Your task to perform on an android device: Go to Reddit.com Image 0: 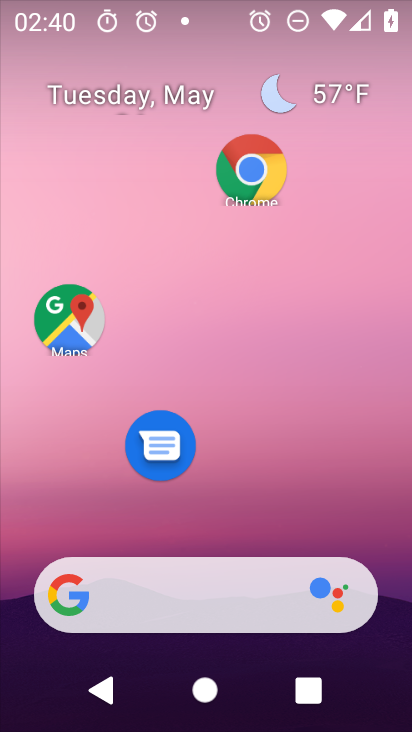
Step 0: click (246, 171)
Your task to perform on an android device: Go to Reddit.com Image 1: 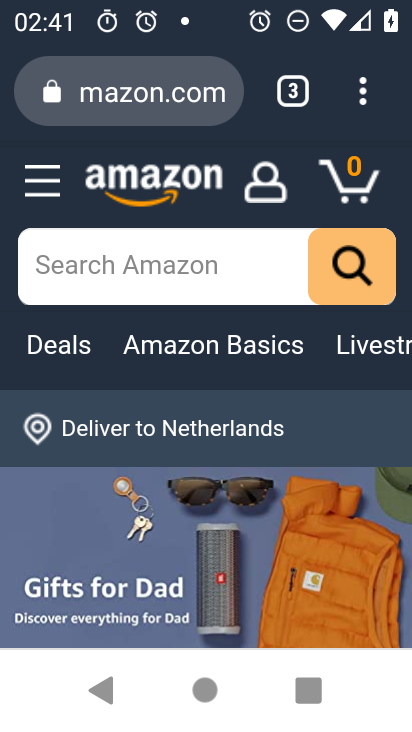
Step 1: click (364, 104)
Your task to perform on an android device: Go to Reddit.com Image 2: 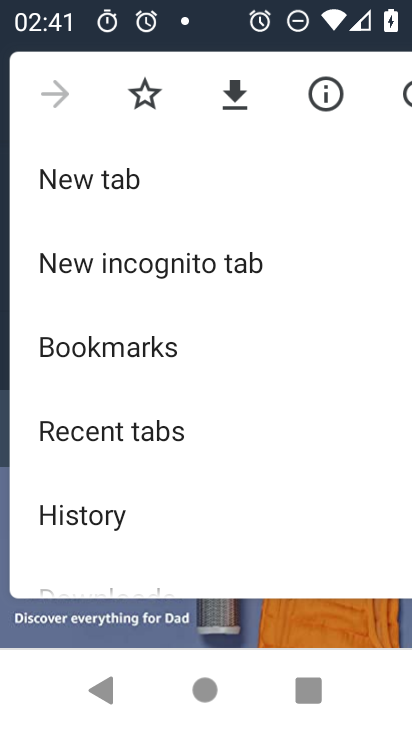
Step 2: click (72, 181)
Your task to perform on an android device: Go to Reddit.com Image 3: 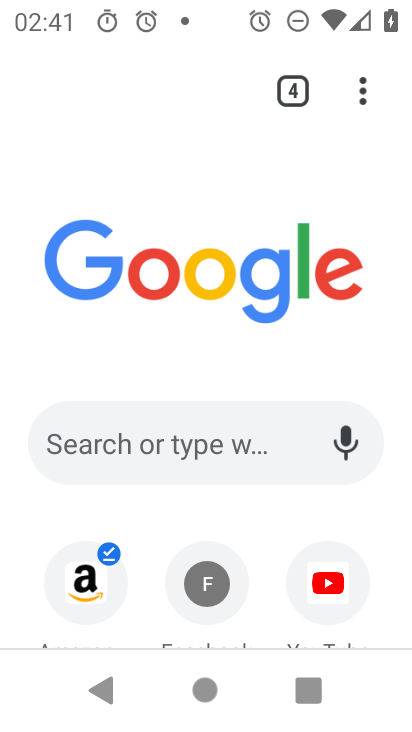
Step 3: drag from (36, 578) to (59, 428)
Your task to perform on an android device: Go to Reddit.com Image 4: 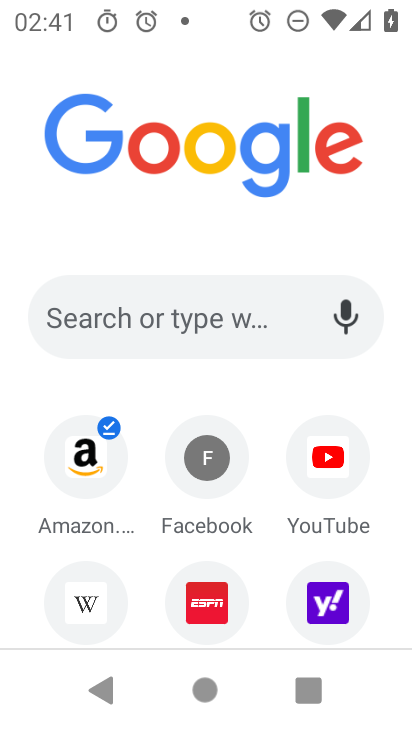
Step 4: click (223, 316)
Your task to perform on an android device: Go to Reddit.com Image 5: 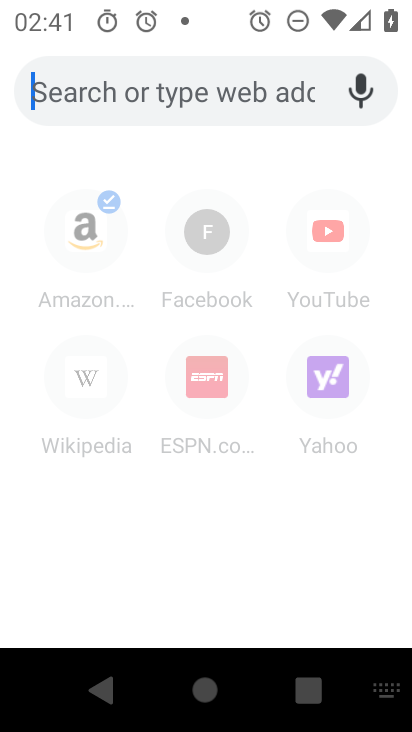
Step 5: type "REddit.com"
Your task to perform on an android device: Go to Reddit.com Image 6: 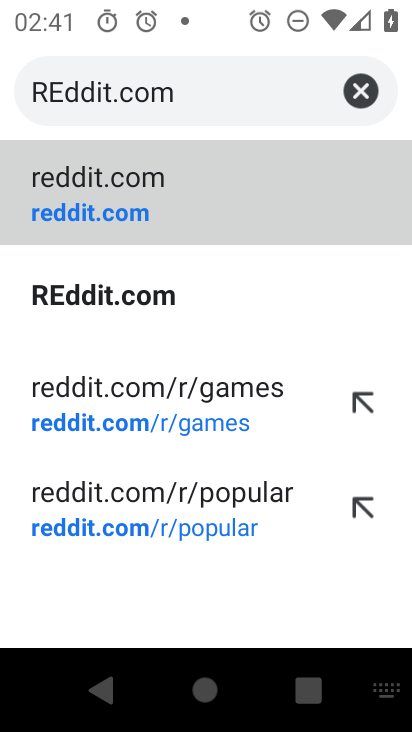
Step 6: click (113, 182)
Your task to perform on an android device: Go to Reddit.com Image 7: 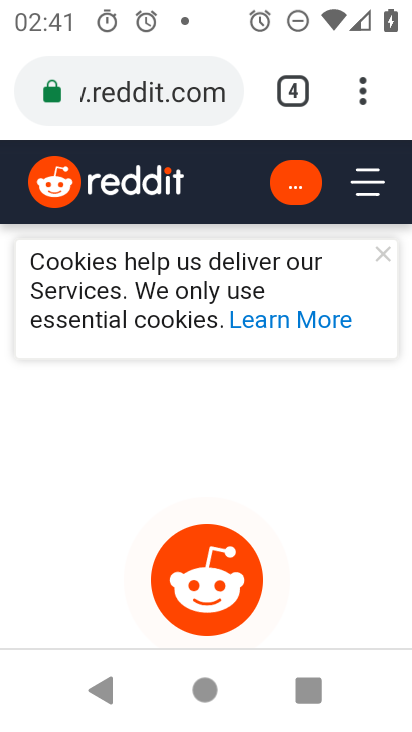
Step 7: task complete